Your task to perform on an android device: Show me popular games on the Play Store Image 0: 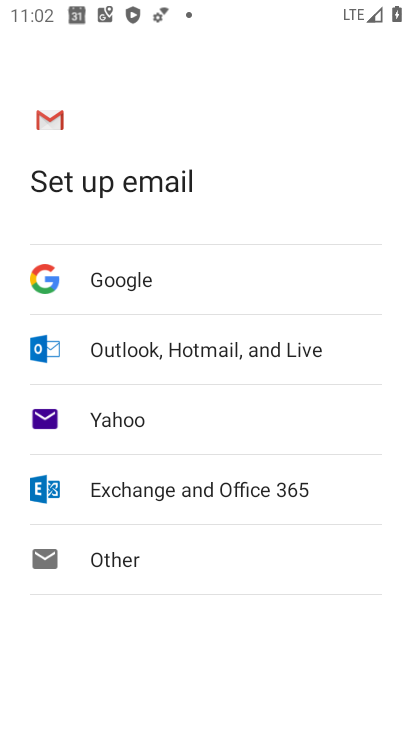
Step 0: press home button
Your task to perform on an android device: Show me popular games on the Play Store Image 1: 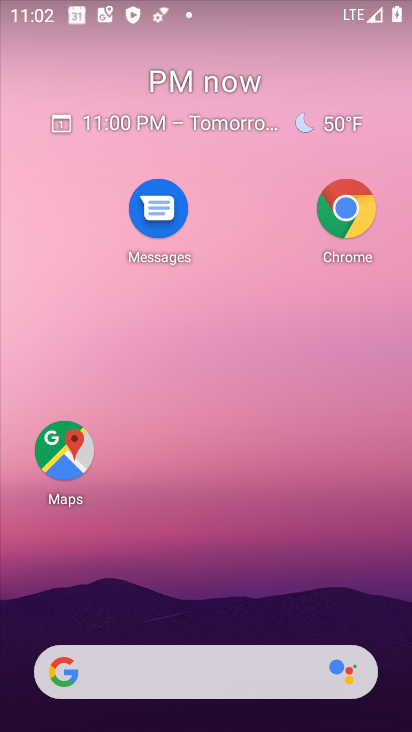
Step 1: drag from (183, 645) to (232, 54)
Your task to perform on an android device: Show me popular games on the Play Store Image 2: 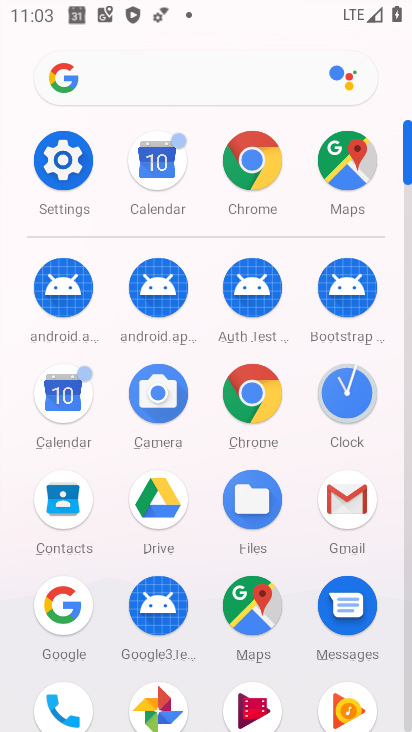
Step 2: drag from (220, 547) to (192, 170)
Your task to perform on an android device: Show me popular games on the Play Store Image 3: 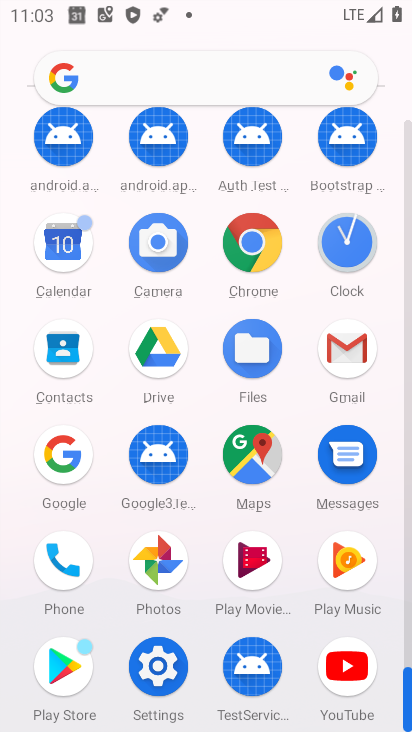
Step 3: click (53, 660)
Your task to perform on an android device: Show me popular games on the Play Store Image 4: 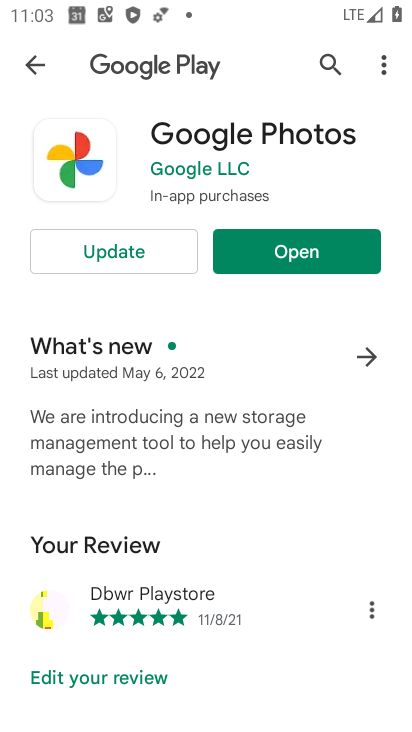
Step 4: click (44, 63)
Your task to perform on an android device: Show me popular games on the Play Store Image 5: 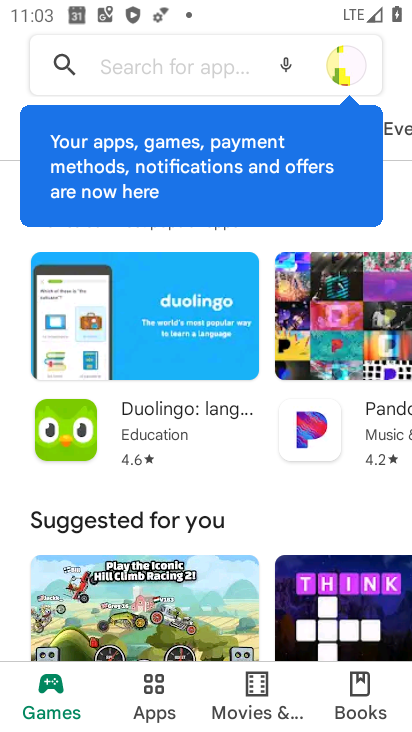
Step 5: drag from (189, 567) to (115, 0)
Your task to perform on an android device: Show me popular games on the Play Store Image 6: 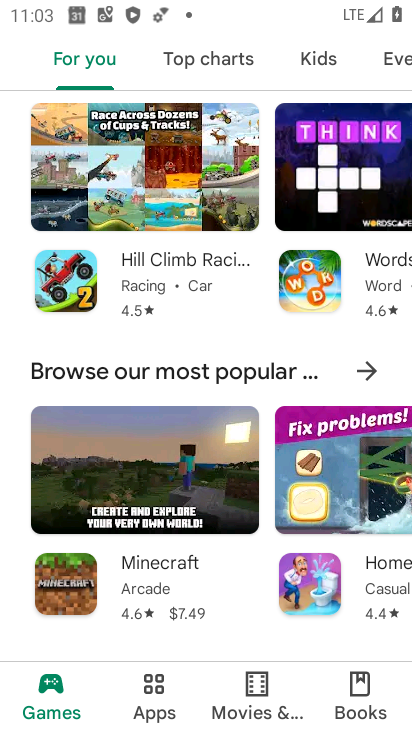
Step 6: click (365, 367)
Your task to perform on an android device: Show me popular games on the Play Store Image 7: 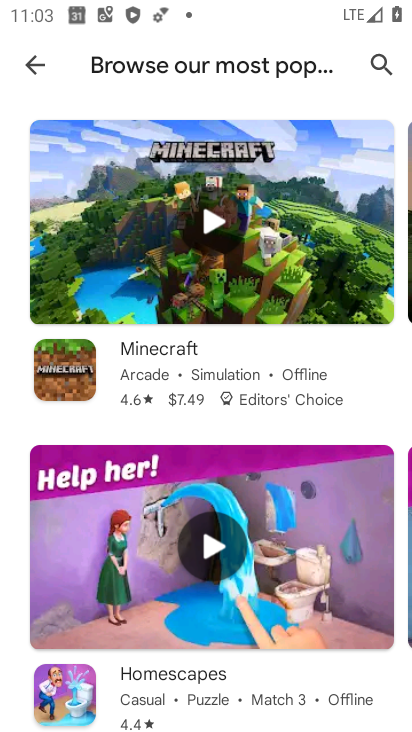
Step 7: task complete